Your task to perform on an android device: move an email to a new category in the gmail app Image 0: 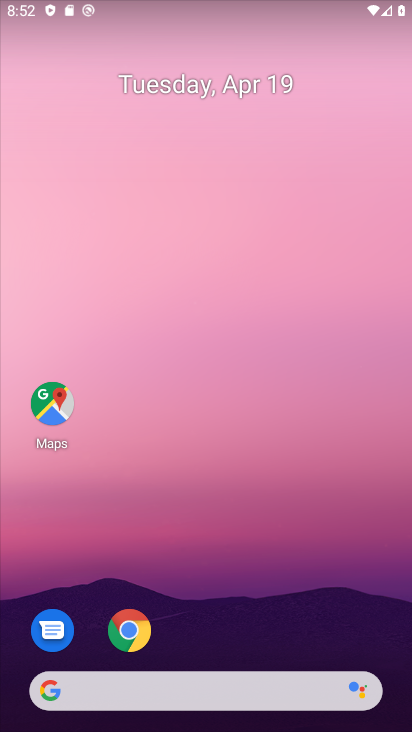
Step 0: drag from (195, 556) to (302, 93)
Your task to perform on an android device: move an email to a new category in the gmail app Image 1: 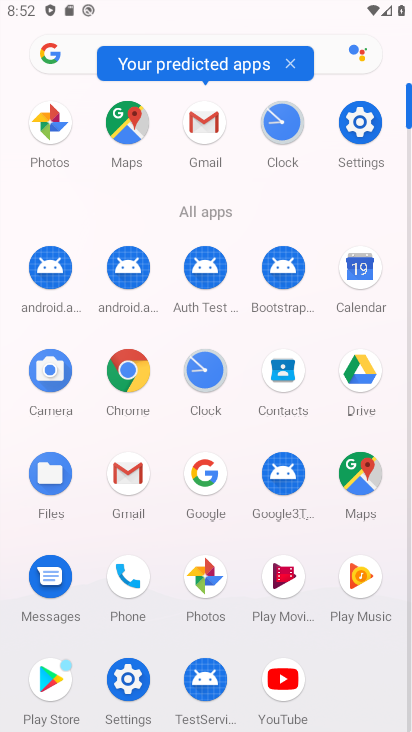
Step 1: click (113, 477)
Your task to perform on an android device: move an email to a new category in the gmail app Image 2: 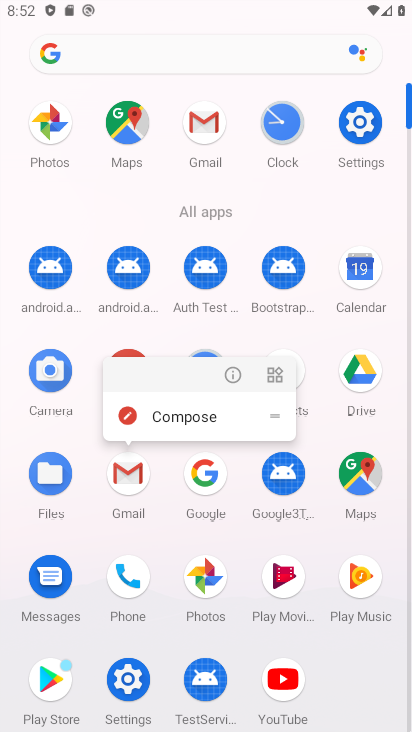
Step 2: click (126, 498)
Your task to perform on an android device: move an email to a new category in the gmail app Image 3: 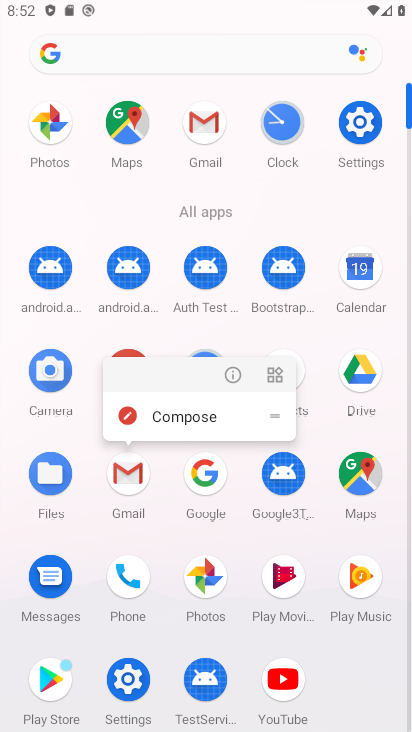
Step 3: click (120, 475)
Your task to perform on an android device: move an email to a new category in the gmail app Image 4: 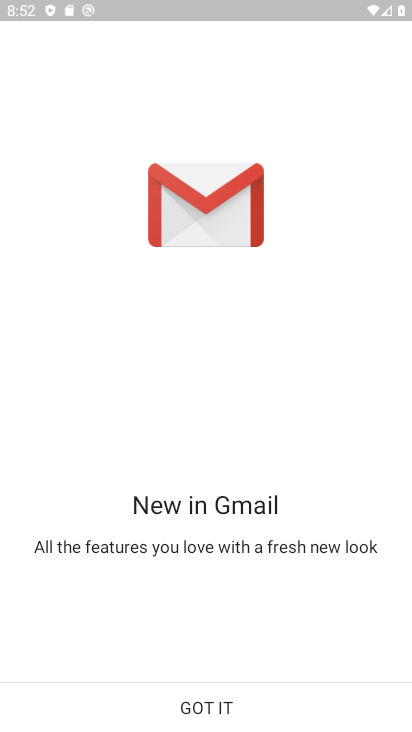
Step 4: click (201, 715)
Your task to perform on an android device: move an email to a new category in the gmail app Image 5: 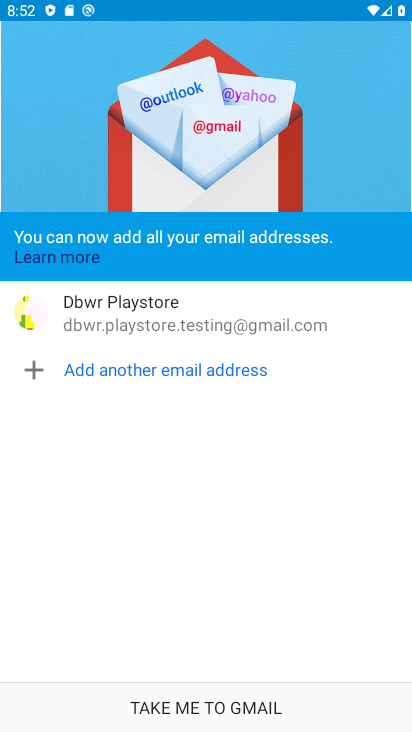
Step 5: click (210, 703)
Your task to perform on an android device: move an email to a new category in the gmail app Image 6: 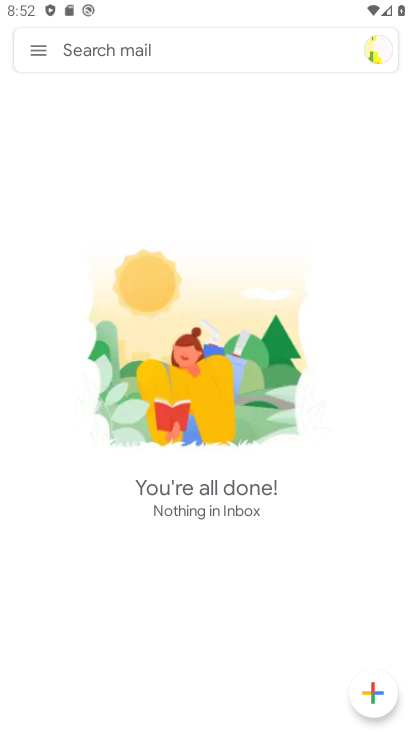
Step 6: click (56, 50)
Your task to perform on an android device: move an email to a new category in the gmail app Image 7: 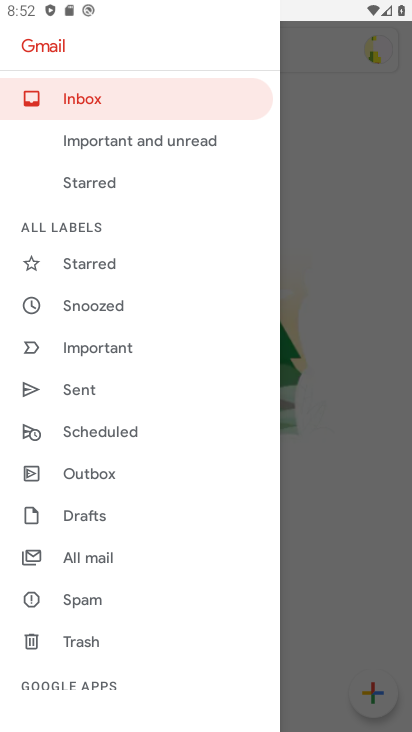
Step 7: click (117, 561)
Your task to perform on an android device: move an email to a new category in the gmail app Image 8: 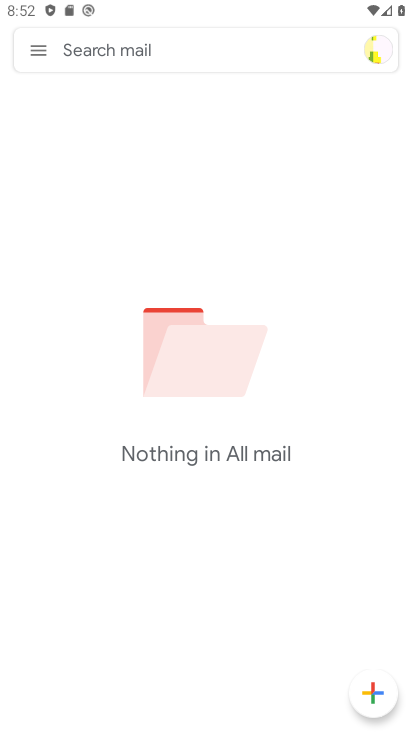
Step 8: task complete